Your task to perform on an android device: Open network settings Image 0: 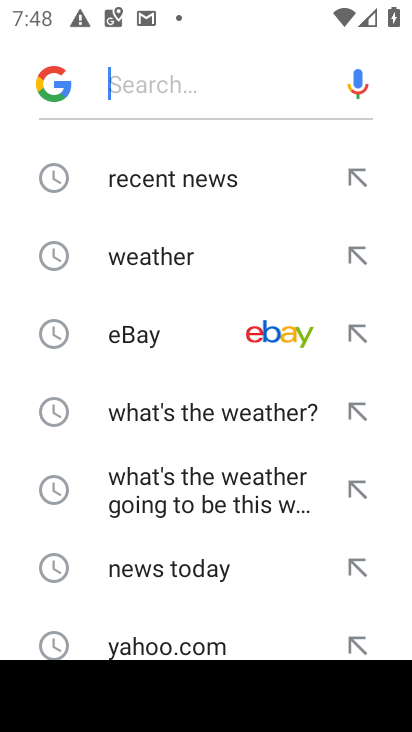
Step 0: press home button
Your task to perform on an android device: Open network settings Image 1: 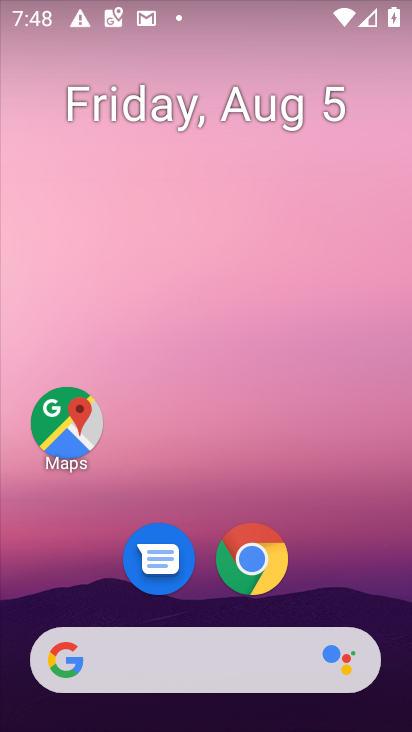
Step 1: drag from (191, 613) to (256, 88)
Your task to perform on an android device: Open network settings Image 2: 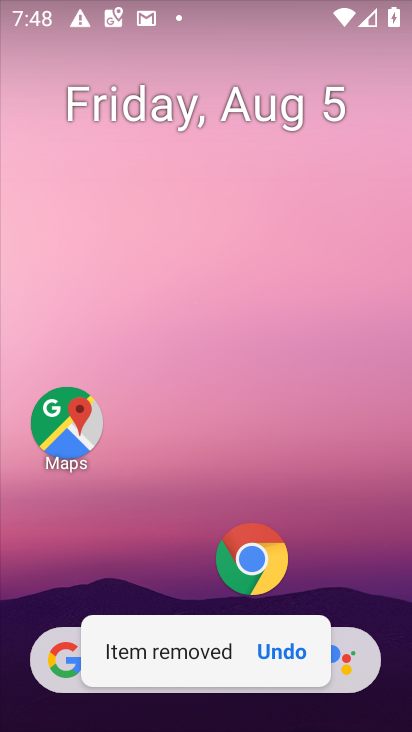
Step 2: drag from (163, 326) to (174, 161)
Your task to perform on an android device: Open network settings Image 3: 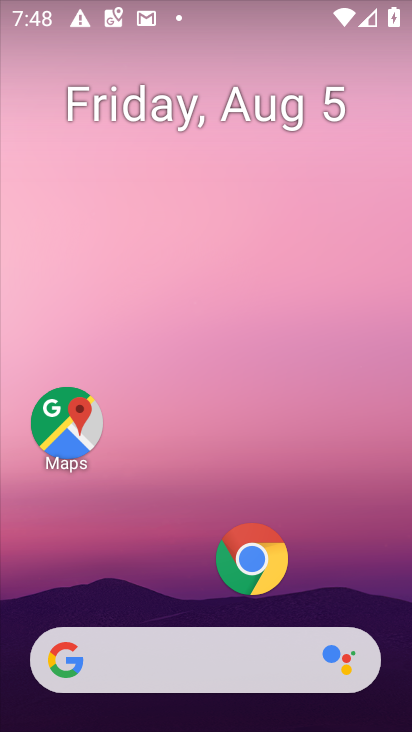
Step 3: drag from (145, 585) to (174, 14)
Your task to perform on an android device: Open network settings Image 4: 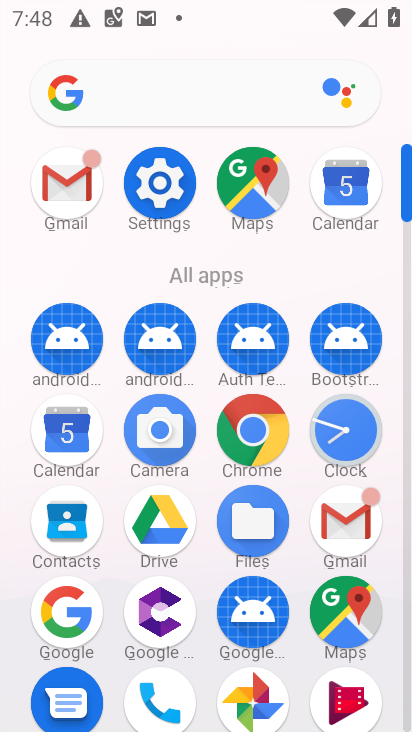
Step 4: click (158, 209)
Your task to perform on an android device: Open network settings Image 5: 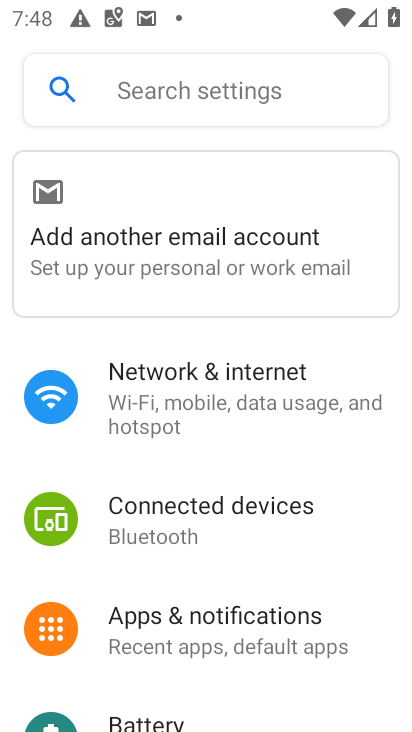
Step 5: click (174, 373)
Your task to perform on an android device: Open network settings Image 6: 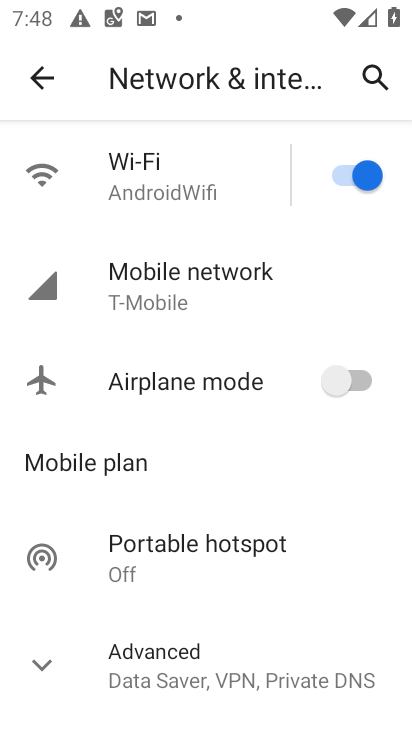
Step 6: task complete